Your task to perform on an android device: Do I have any events today? Image 0: 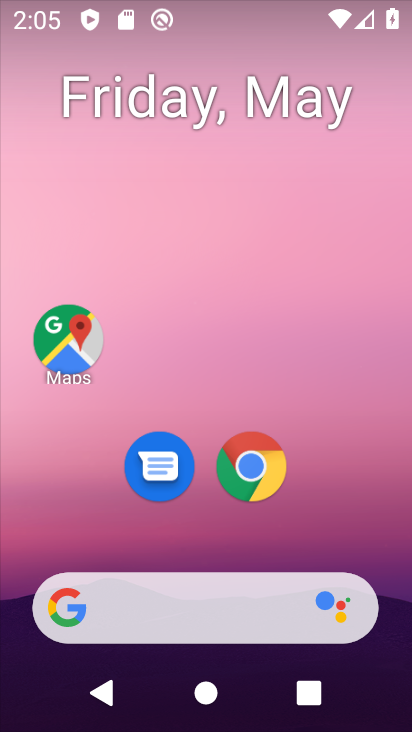
Step 0: drag from (353, 524) to (330, 241)
Your task to perform on an android device: Do I have any events today? Image 1: 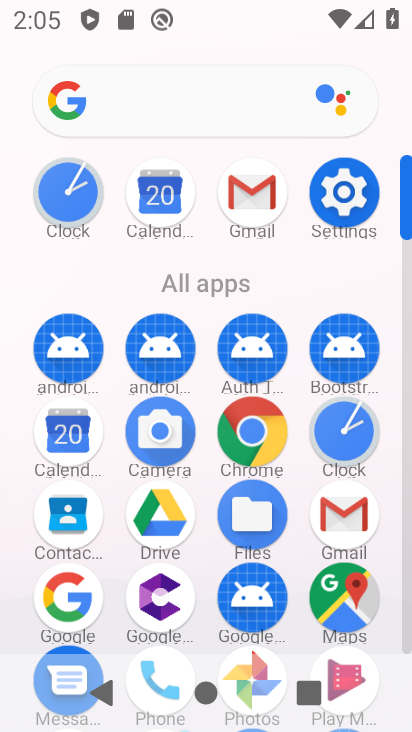
Step 1: click (147, 208)
Your task to perform on an android device: Do I have any events today? Image 2: 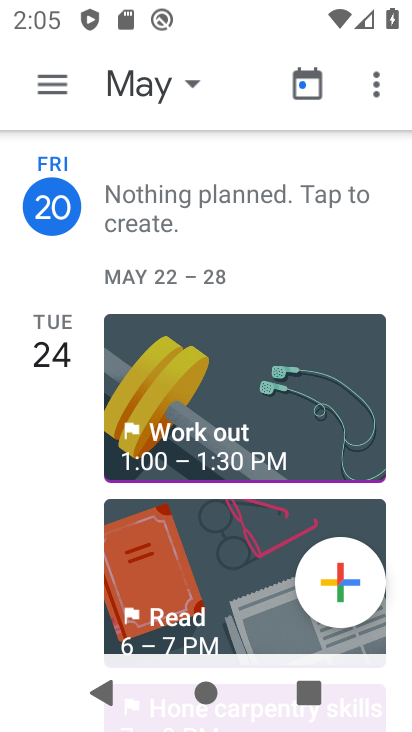
Step 2: task complete